Your task to perform on an android device: Open the map Image 0: 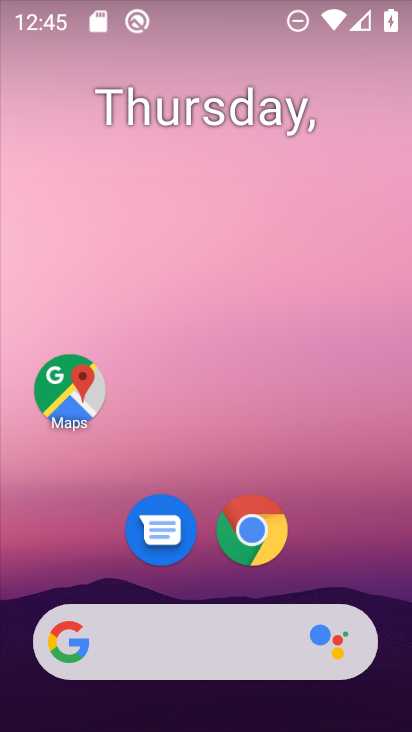
Step 0: click (63, 389)
Your task to perform on an android device: Open the map Image 1: 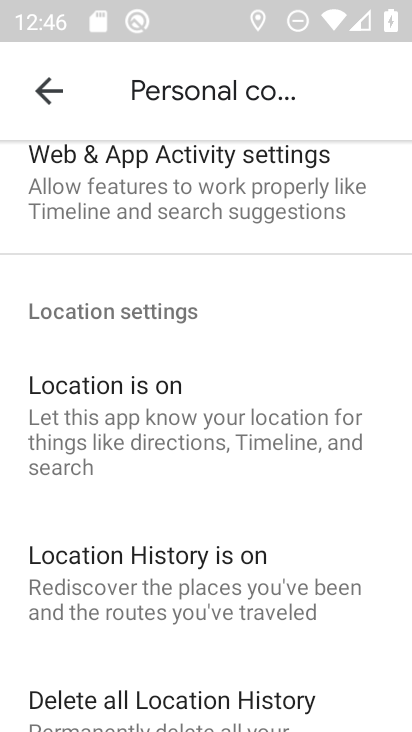
Step 1: press home button
Your task to perform on an android device: Open the map Image 2: 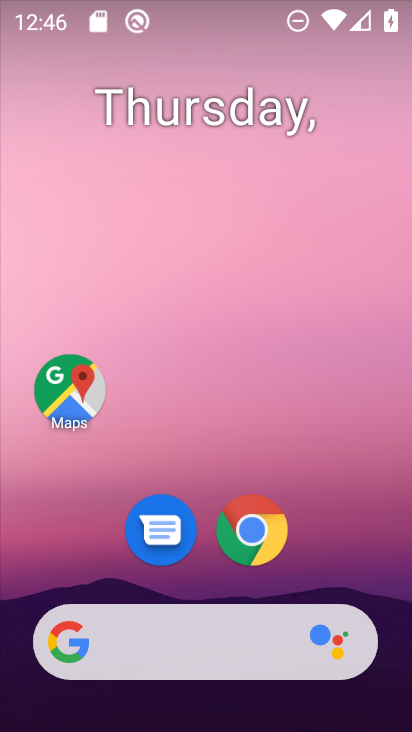
Step 2: click (81, 406)
Your task to perform on an android device: Open the map Image 3: 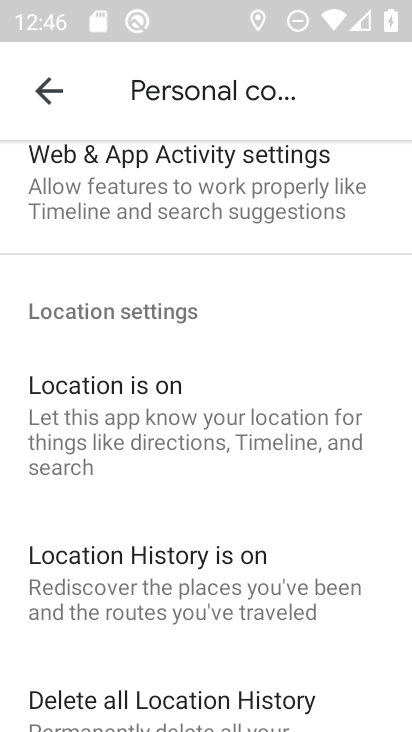
Step 3: click (38, 93)
Your task to perform on an android device: Open the map Image 4: 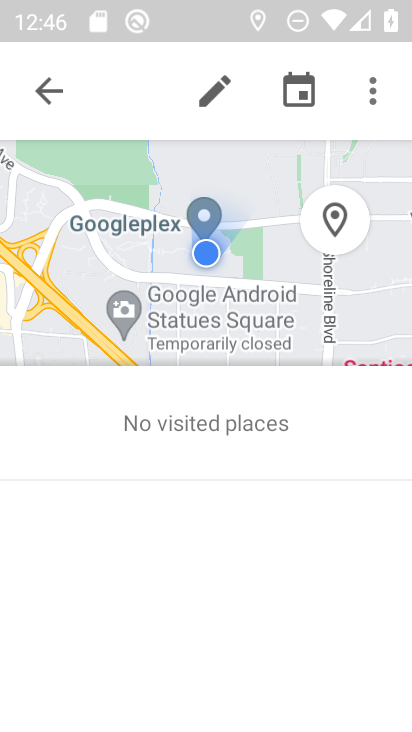
Step 4: click (38, 93)
Your task to perform on an android device: Open the map Image 5: 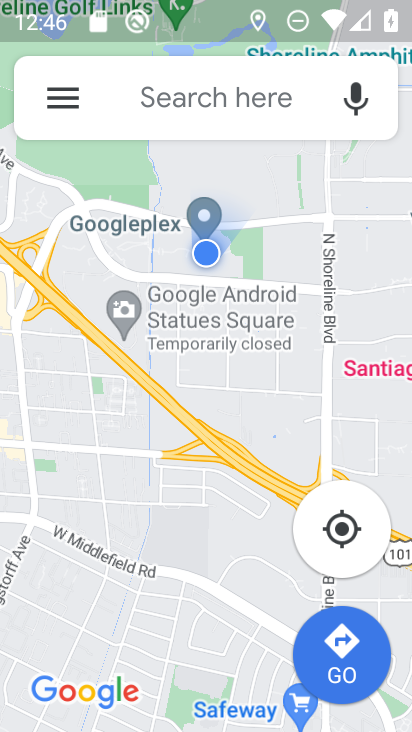
Step 5: task complete